Your task to perform on an android device: toggle data saver in the chrome app Image 0: 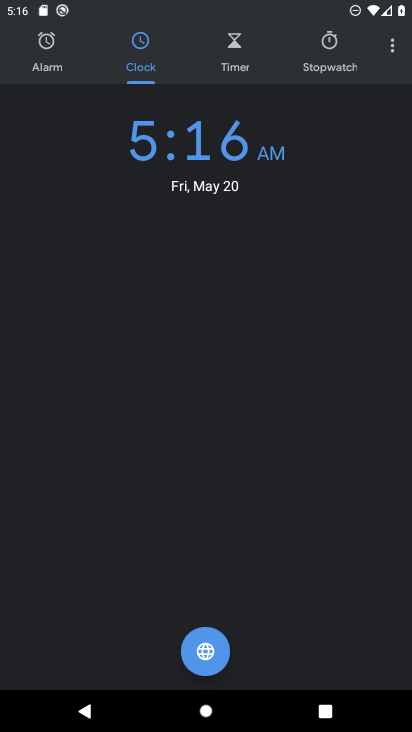
Step 0: press home button
Your task to perform on an android device: toggle data saver in the chrome app Image 1: 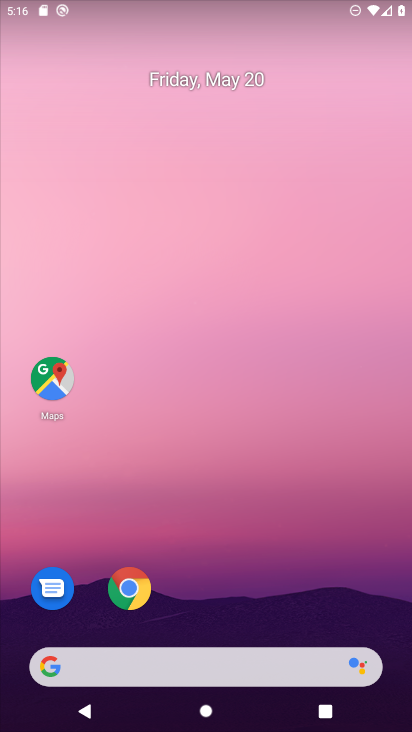
Step 1: click (129, 597)
Your task to perform on an android device: toggle data saver in the chrome app Image 2: 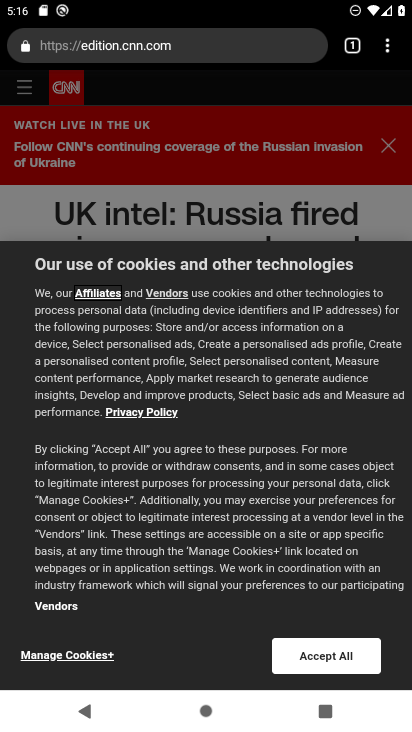
Step 2: click (392, 52)
Your task to perform on an android device: toggle data saver in the chrome app Image 3: 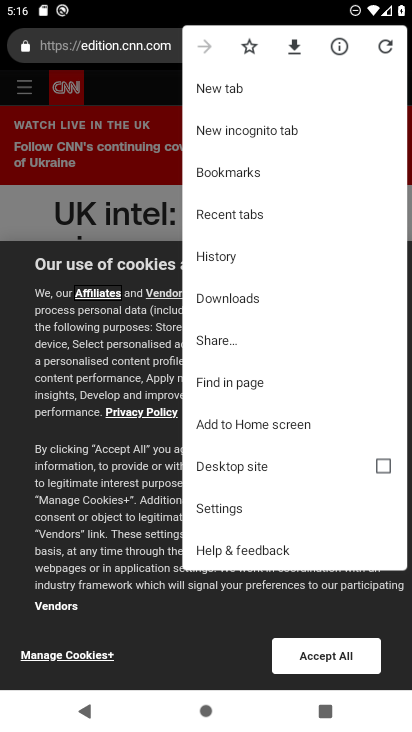
Step 3: click (216, 516)
Your task to perform on an android device: toggle data saver in the chrome app Image 4: 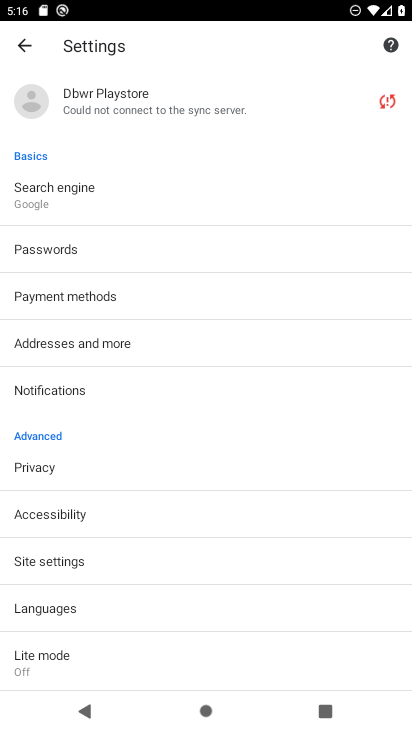
Step 4: click (35, 662)
Your task to perform on an android device: toggle data saver in the chrome app Image 5: 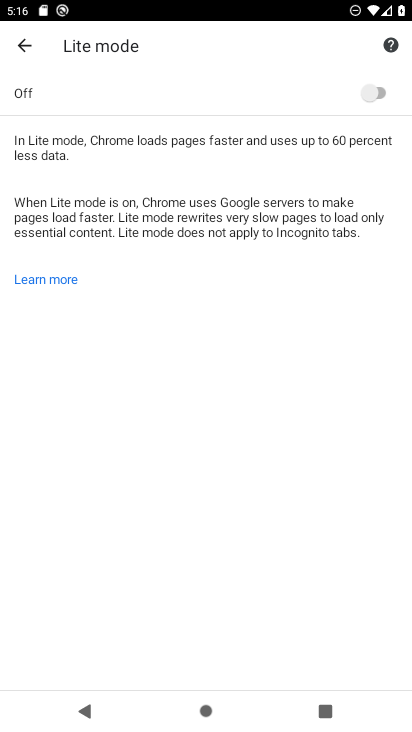
Step 5: click (386, 97)
Your task to perform on an android device: toggle data saver in the chrome app Image 6: 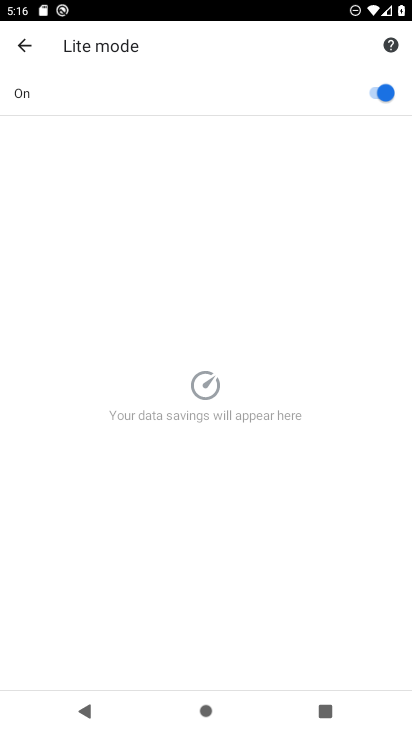
Step 6: task complete